Your task to perform on an android device: add a contact Image 0: 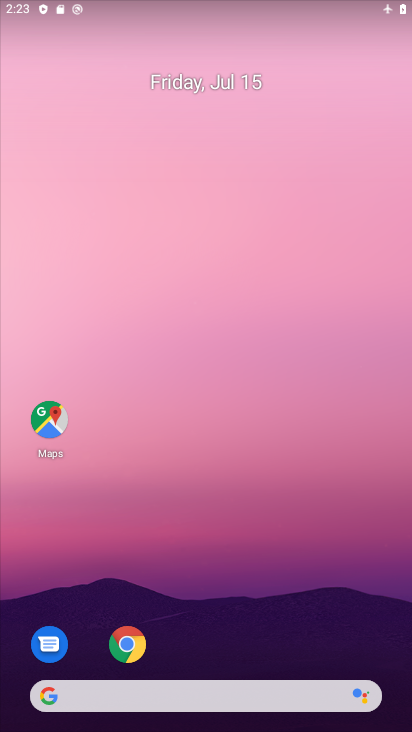
Step 0: drag from (242, 710) to (243, 13)
Your task to perform on an android device: add a contact Image 1: 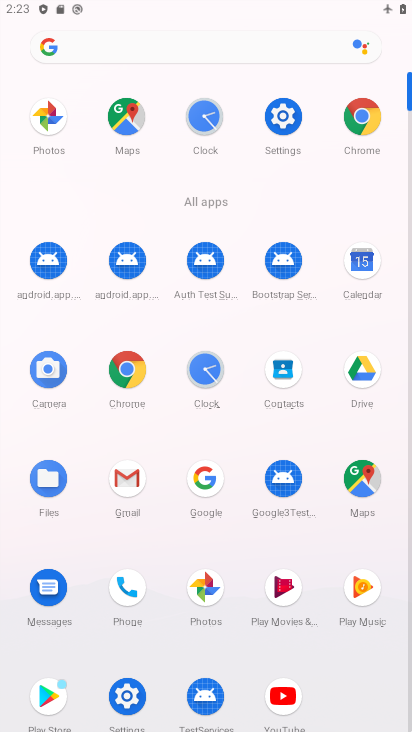
Step 1: click (299, 365)
Your task to perform on an android device: add a contact Image 2: 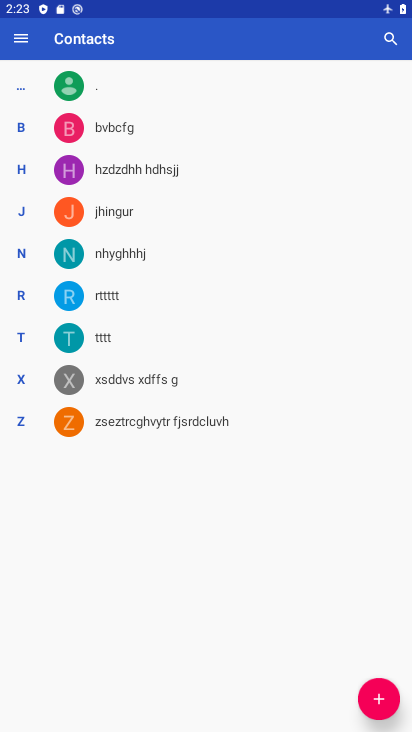
Step 2: click (379, 691)
Your task to perform on an android device: add a contact Image 3: 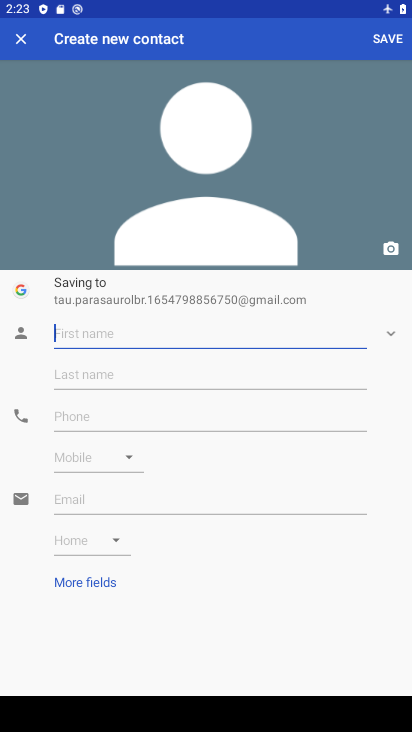
Step 3: type "suman"
Your task to perform on an android device: add a contact Image 4: 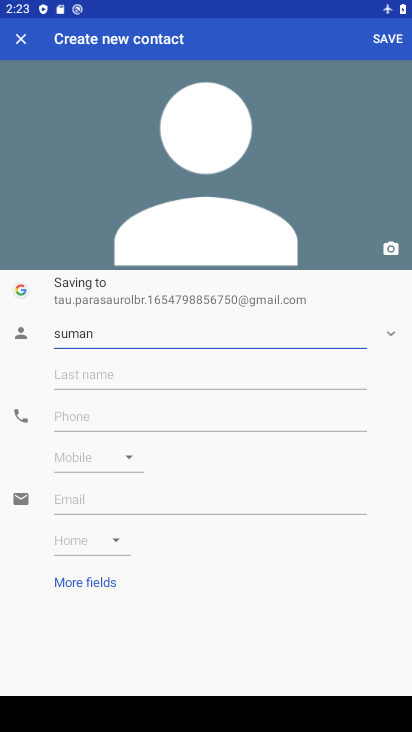
Step 4: click (132, 420)
Your task to perform on an android device: add a contact Image 5: 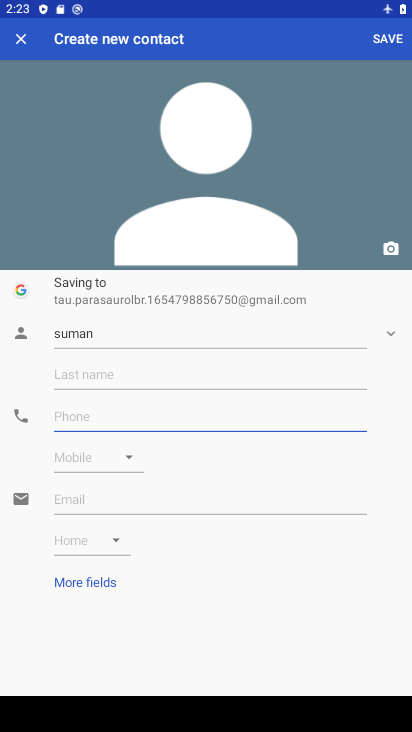
Step 5: type "98976755666"
Your task to perform on an android device: add a contact Image 6: 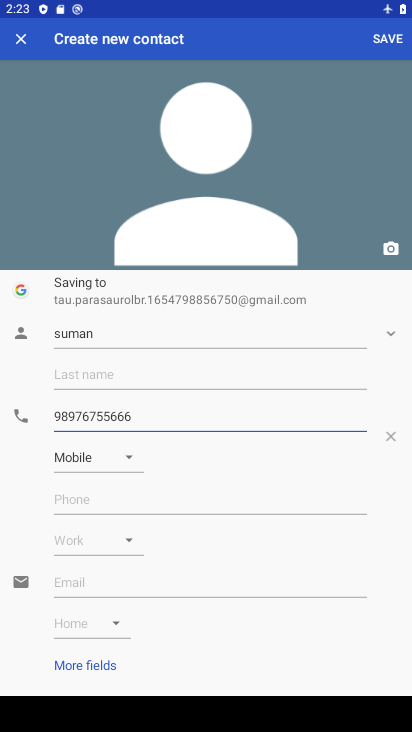
Step 6: click (394, 36)
Your task to perform on an android device: add a contact Image 7: 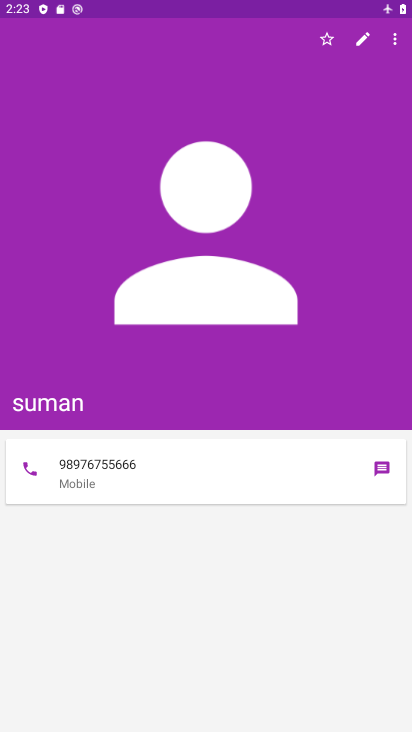
Step 7: task complete